Your task to perform on an android device: check storage Image 0: 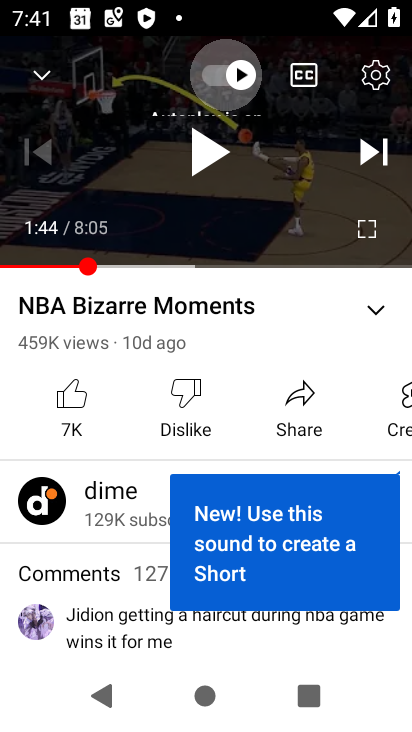
Step 0: press home button
Your task to perform on an android device: check storage Image 1: 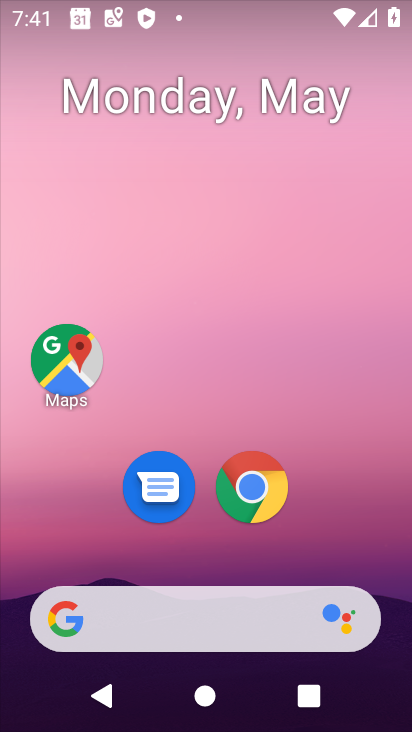
Step 1: drag from (374, 550) to (375, 185)
Your task to perform on an android device: check storage Image 2: 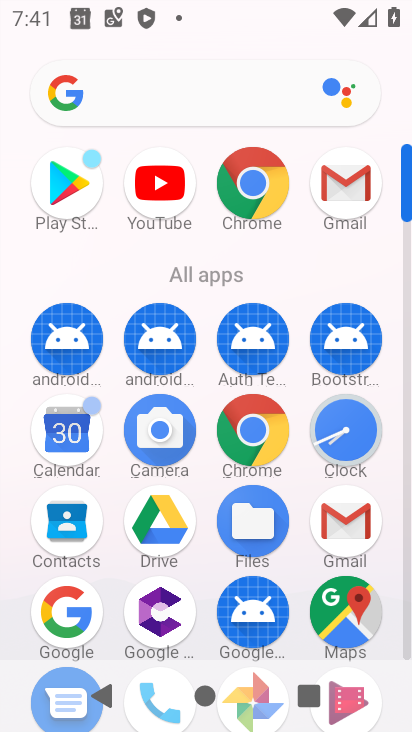
Step 2: drag from (390, 534) to (397, 197)
Your task to perform on an android device: check storage Image 3: 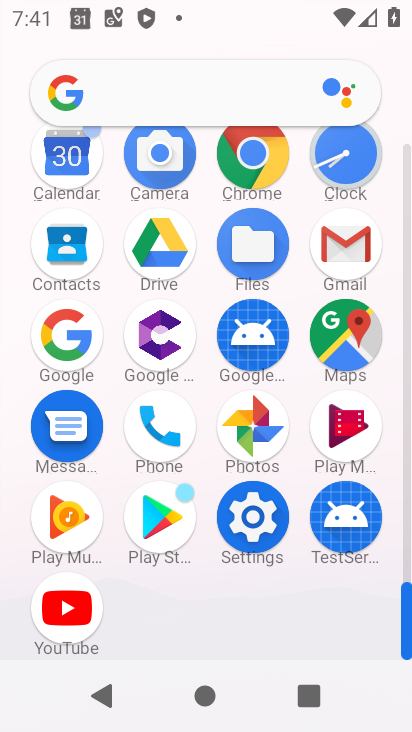
Step 3: click (265, 541)
Your task to perform on an android device: check storage Image 4: 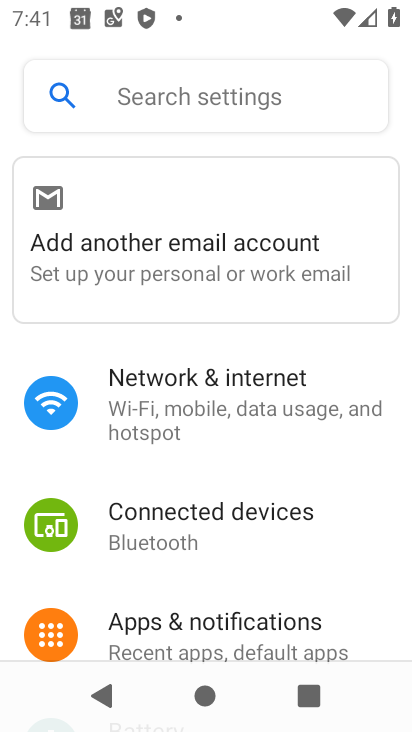
Step 4: drag from (337, 548) to (354, 380)
Your task to perform on an android device: check storage Image 5: 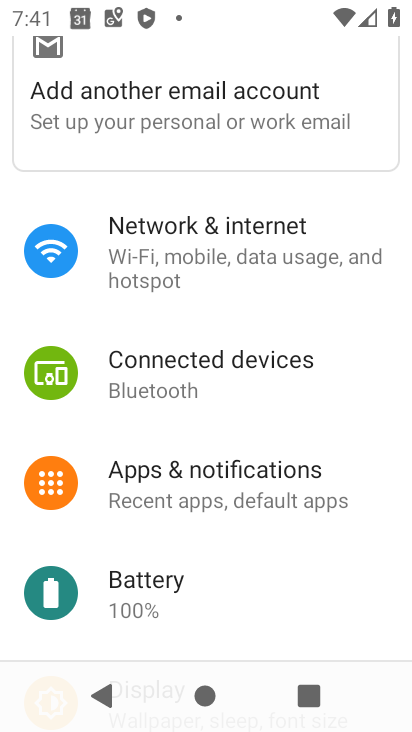
Step 5: drag from (360, 578) to (349, 367)
Your task to perform on an android device: check storage Image 6: 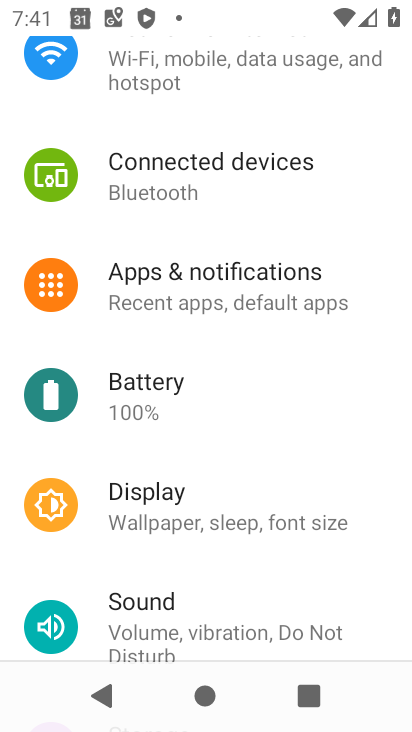
Step 6: drag from (359, 563) to (367, 363)
Your task to perform on an android device: check storage Image 7: 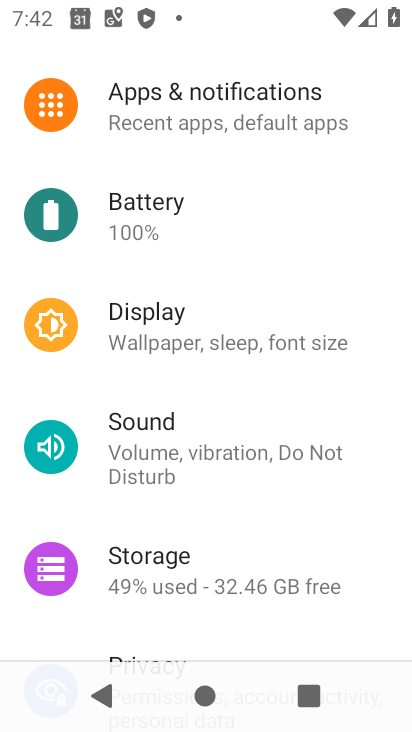
Step 7: drag from (372, 585) to (370, 369)
Your task to perform on an android device: check storage Image 8: 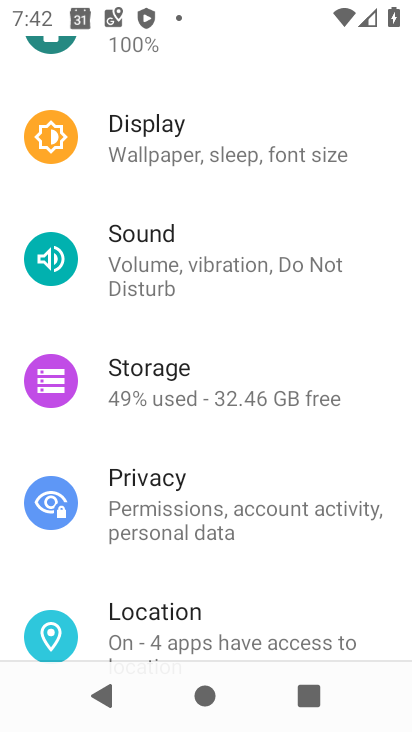
Step 8: drag from (360, 563) to (351, 390)
Your task to perform on an android device: check storage Image 9: 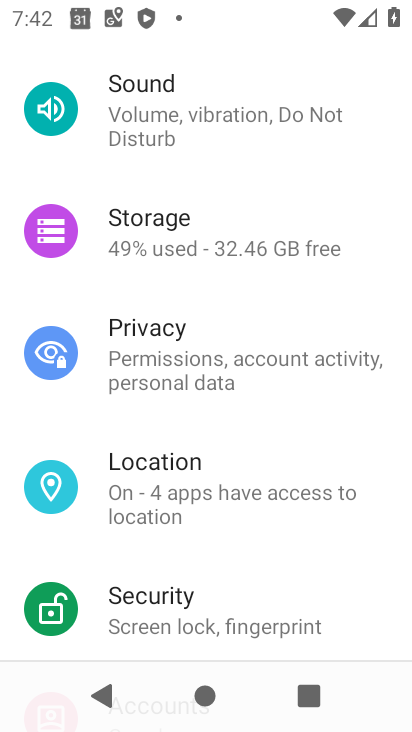
Step 9: drag from (370, 599) to (370, 360)
Your task to perform on an android device: check storage Image 10: 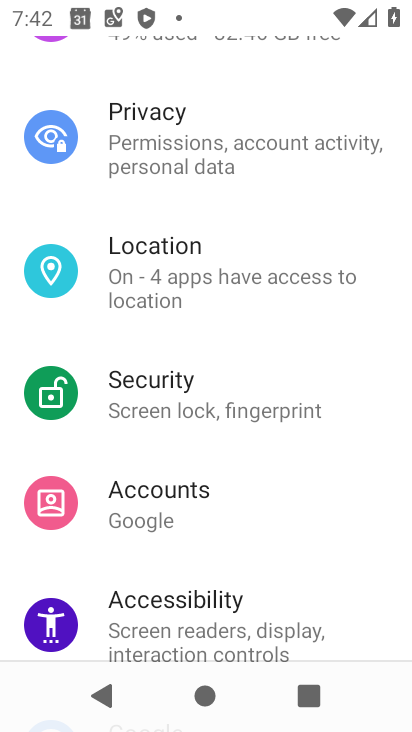
Step 10: drag from (333, 350) to (355, 536)
Your task to perform on an android device: check storage Image 11: 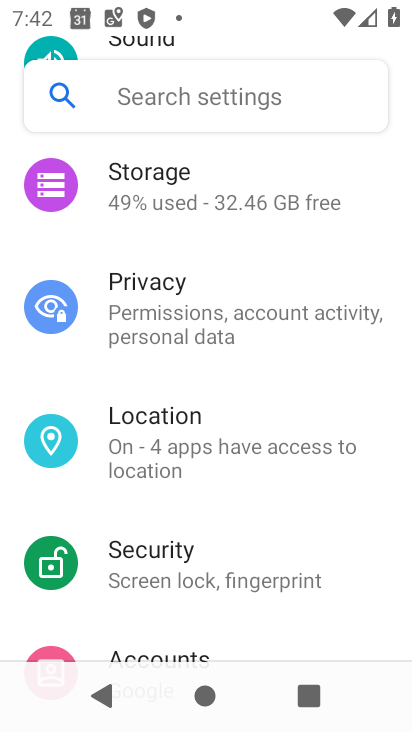
Step 11: drag from (352, 265) to (362, 478)
Your task to perform on an android device: check storage Image 12: 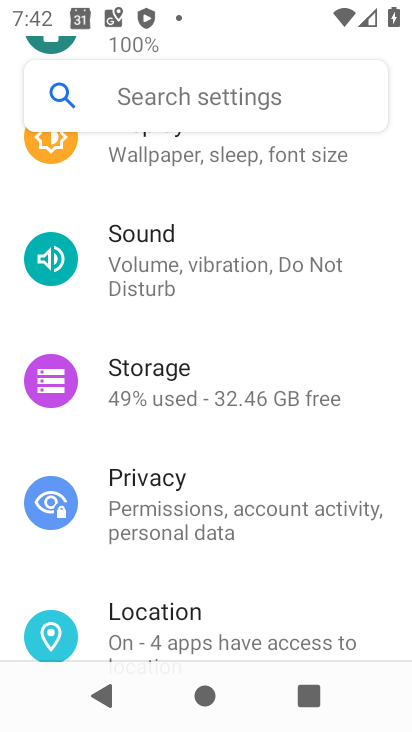
Step 12: click (264, 390)
Your task to perform on an android device: check storage Image 13: 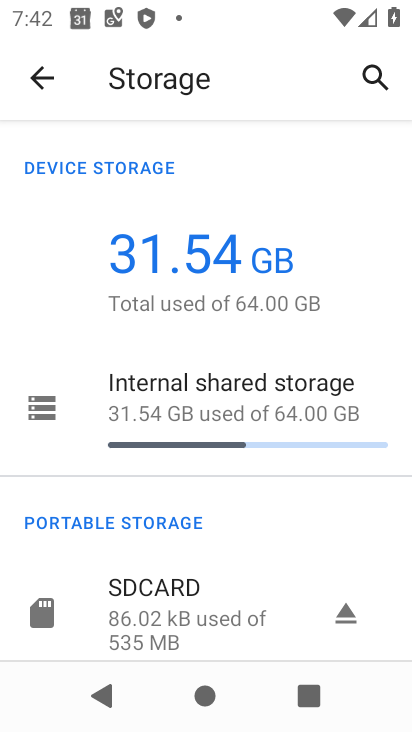
Step 13: task complete